Your task to perform on an android device: Search for hotels in Philadelphia Image 0: 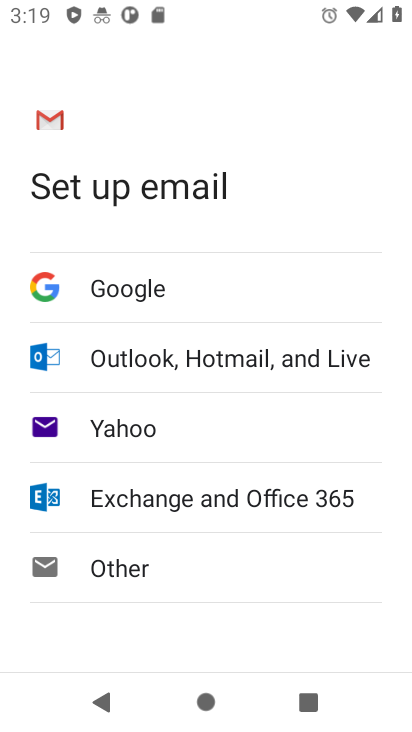
Step 0: press home button
Your task to perform on an android device: Search for hotels in Philadelphia Image 1: 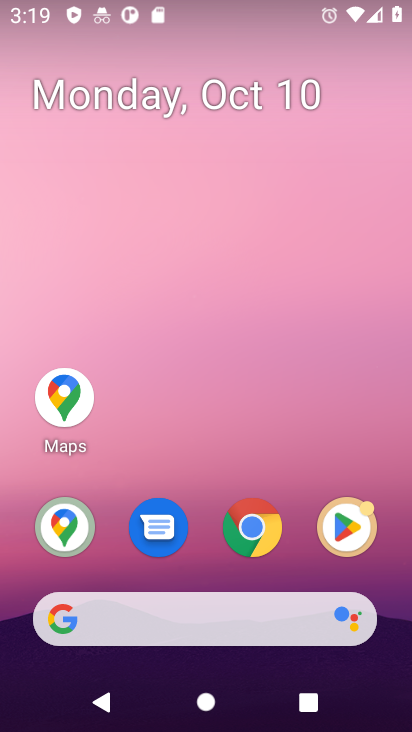
Step 1: click (62, 402)
Your task to perform on an android device: Search for hotels in Philadelphia Image 2: 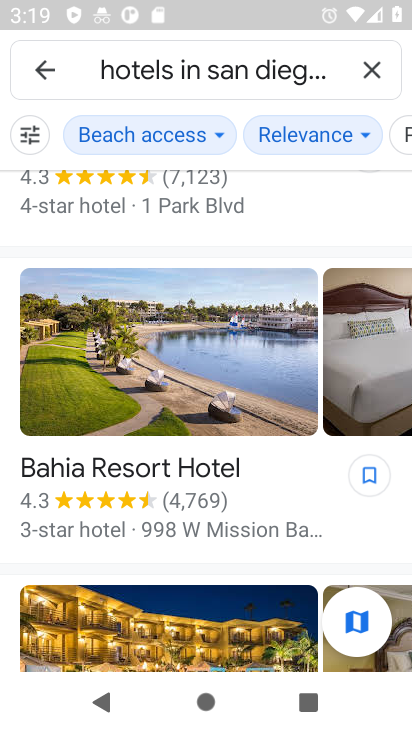
Step 2: click (344, 73)
Your task to perform on an android device: Search for hotels in Philadelphia Image 3: 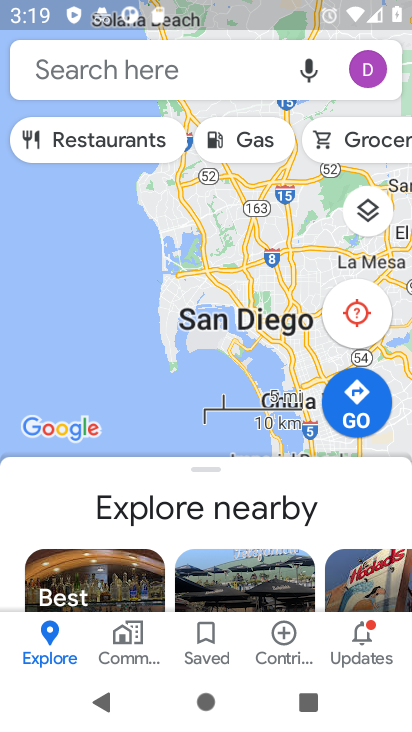
Step 3: click (248, 79)
Your task to perform on an android device: Search for hotels in Philadelphia Image 4: 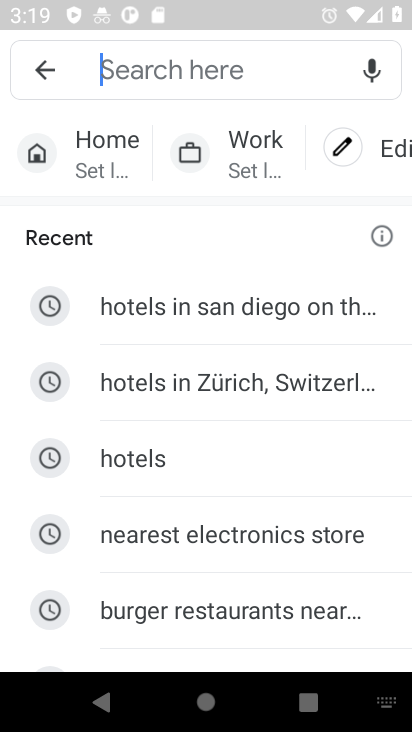
Step 4: type "hotels in Philadelphia"
Your task to perform on an android device: Search for hotels in Philadelphia Image 5: 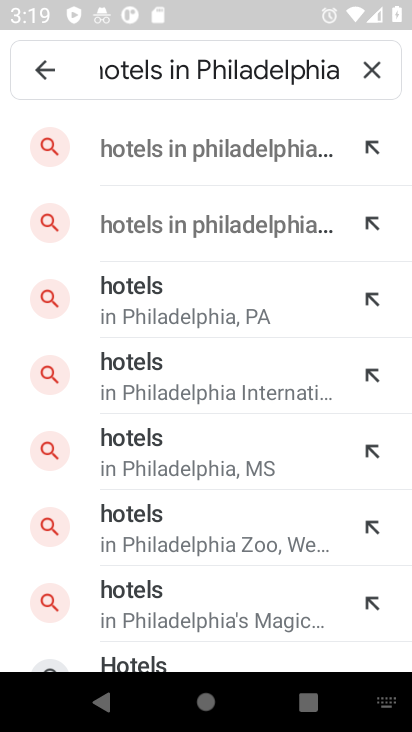
Step 5: click (207, 153)
Your task to perform on an android device: Search for hotels in Philadelphia Image 6: 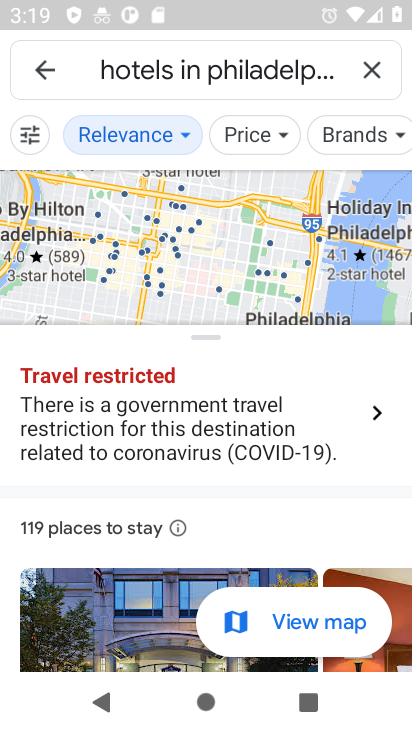
Step 6: task complete